Your task to perform on an android device: Go to Maps Image 0: 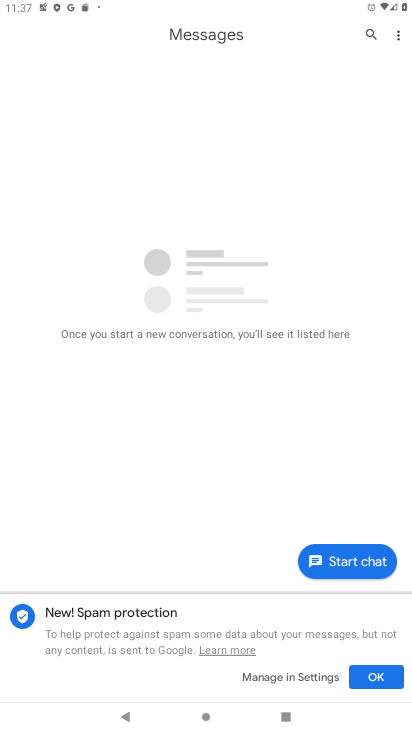
Step 0: press home button
Your task to perform on an android device: Go to Maps Image 1: 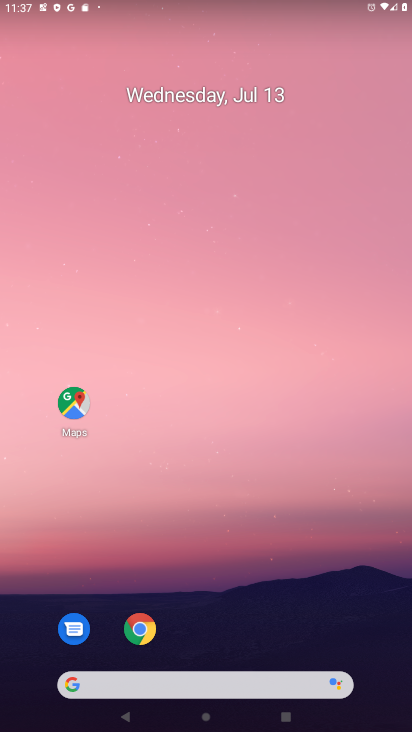
Step 1: click (80, 425)
Your task to perform on an android device: Go to Maps Image 2: 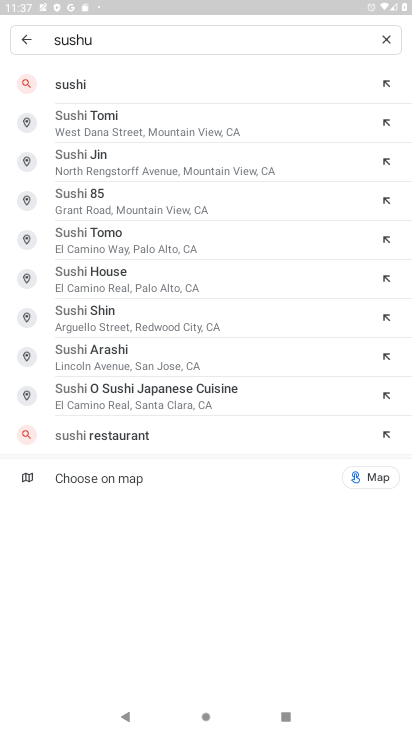
Step 2: task complete